Your task to perform on an android device: Open the calendar app, open the side menu, and click the "Day" option Image 0: 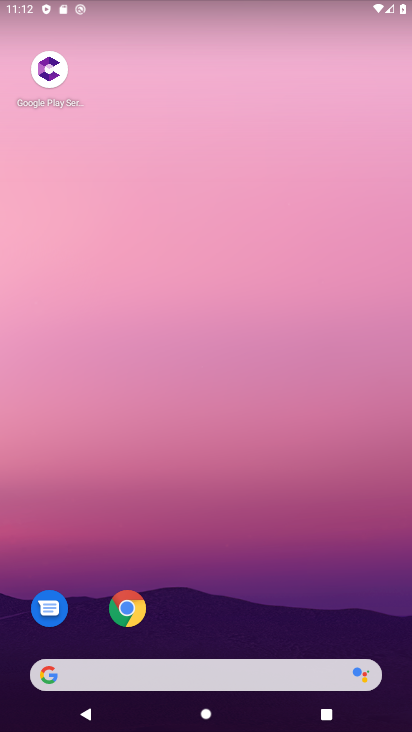
Step 0: drag from (209, 620) to (214, 86)
Your task to perform on an android device: Open the calendar app, open the side menu, and click the "Day" option Image 1: 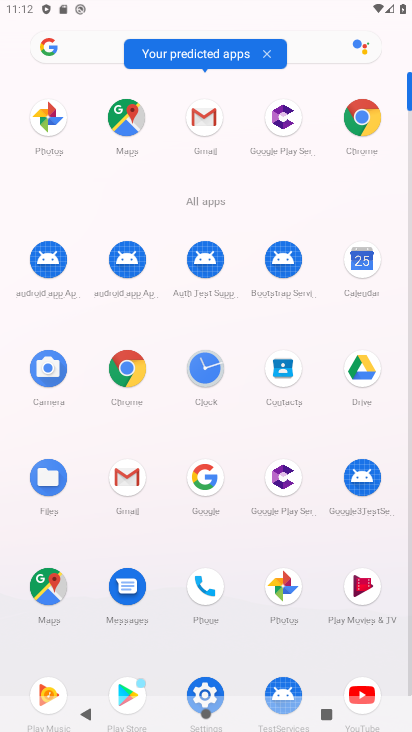
Step 1: click (364, 251)
Your task to perform on an android device: Open the calendar app, open the side menu, and click the "Day" option Image 2: 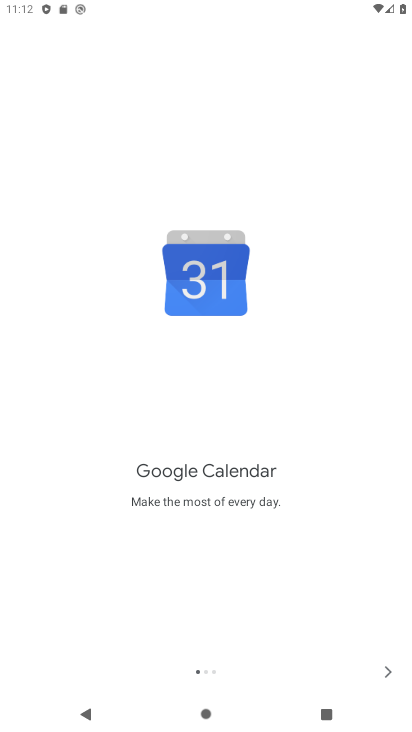
Step 2: click (392, 669)
Your task to perform on an android device: Open the calendar app, open the side menu, and click the "Day" option Image 3: 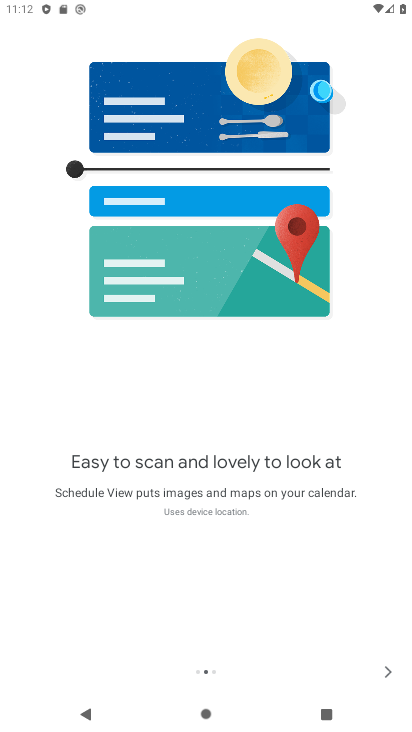
Step 3: click (392, 669)
Your task to perform on an android device: Open the calendar app, open the side menu, and click the "Day" option Image 4: 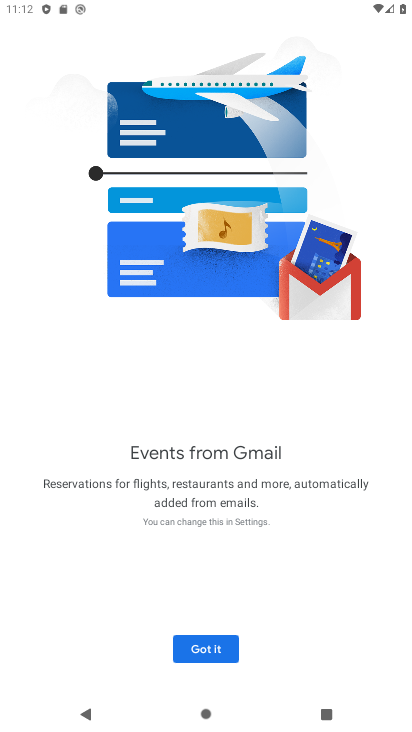
Step 4: click (216, 655)
Your task to perform on an android device: Open the calendar app, open the side menu, and click the "Day" option Image 5: 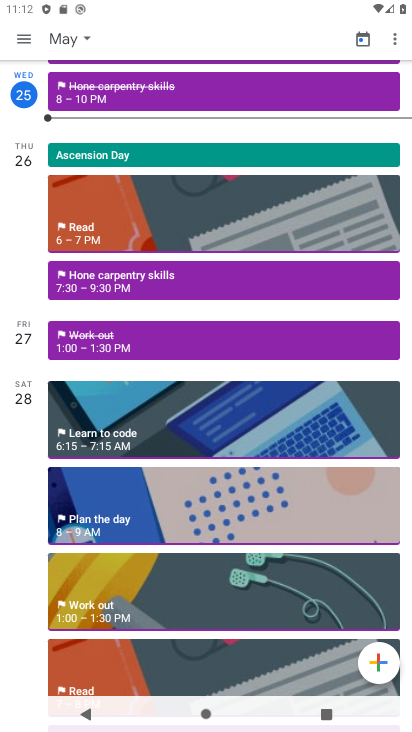
Step 5: click (17, 43)
Your task to perform on an android device: Open the calendar app, open the side menu, and click the "Day" option Image 6: 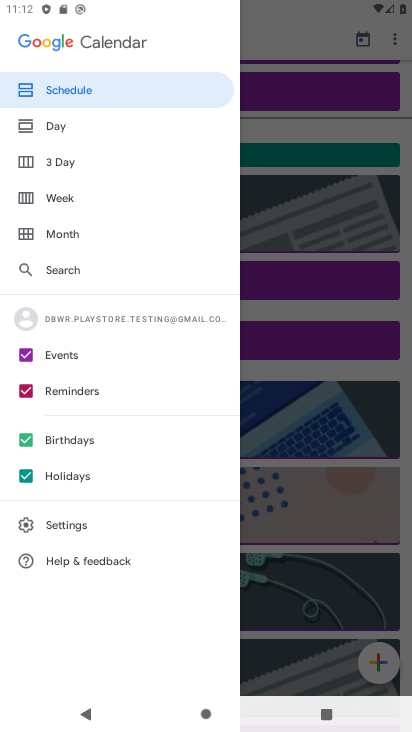
Step 6: click (62, 131)
Your task to perform on an android device: Open the calendar app, open the side menu, and click the "Day" option Image 7: 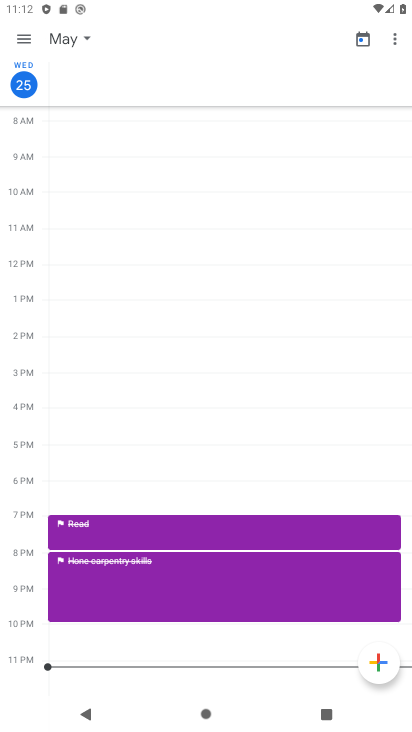
Step 7: task complete